Your task to perform on an android device: turn off notifications in google photos Image 0: 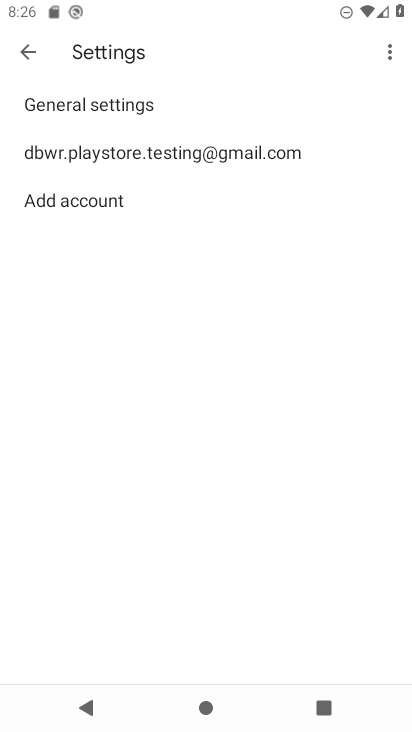
Step 0: press home button
Your task to perform on an android device: turn off notifications in google photos Image 1: 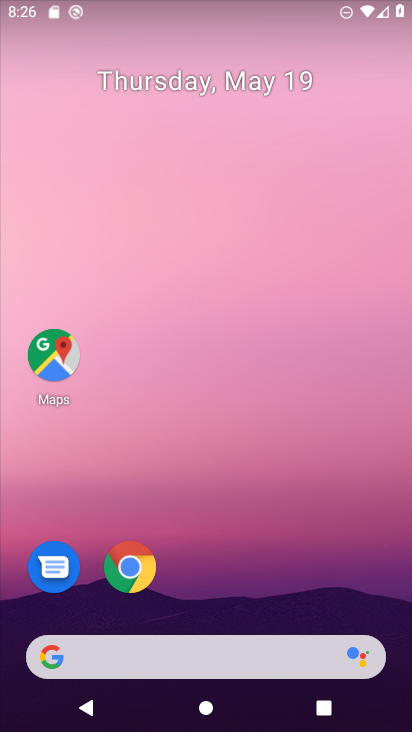
Step 1: drag from (195, 595) to (389, 99)
Your task to perform on an android device: turn off notifications in google photos Image 2: 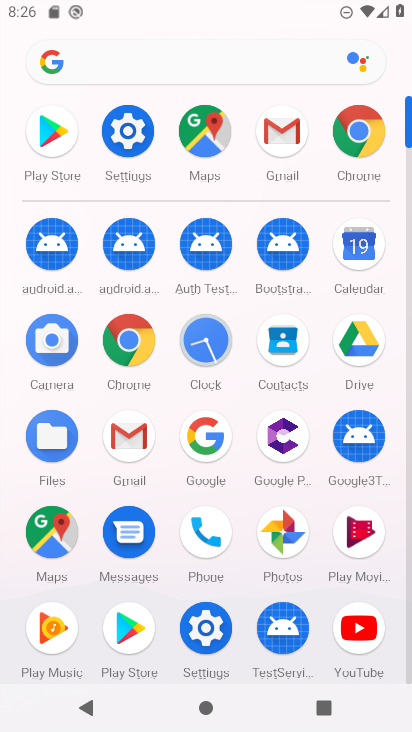
Step 2: click (296, 538)
Your task to perform on an android device: turn off notifications in google photos Image 3: 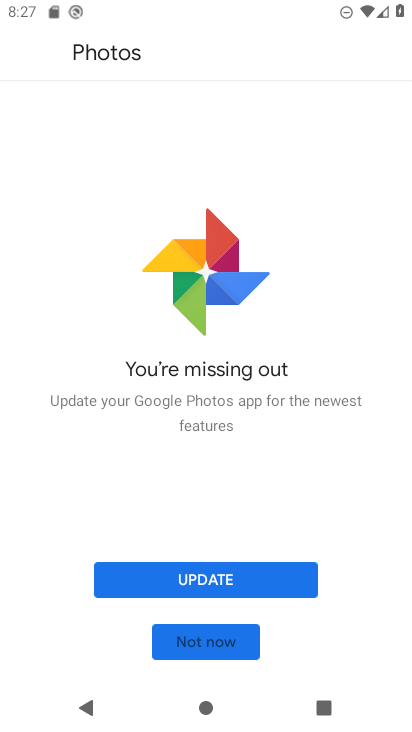
Step 3: click (219, 643)
Your task to perform on an android device: turn off notifications in google photos Image 4: 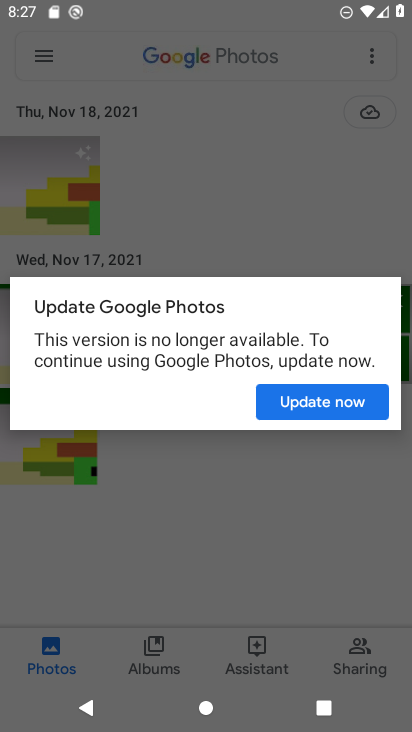
Step 4: click (305, 406)
Your task to perform on an android device: turn off notifications in google photos Image 5: 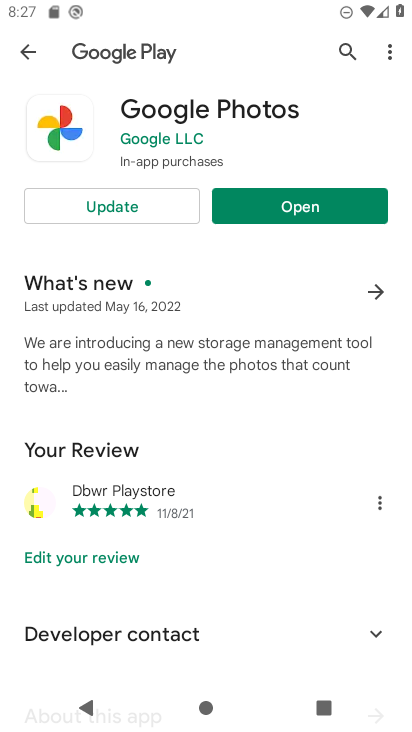
Step 5: click (326, 215)
Your task to perform on an android device: turn off notifications in google photos Image 6: 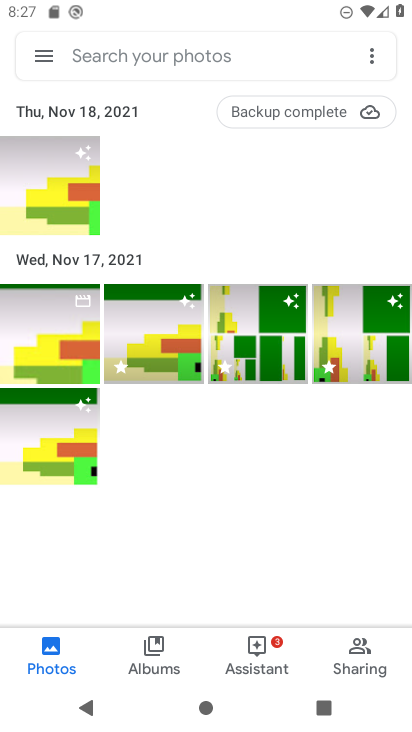
Step 6: click (46, 59)
Your task to perform on an android device: turn off notifications in google photos Image 7: 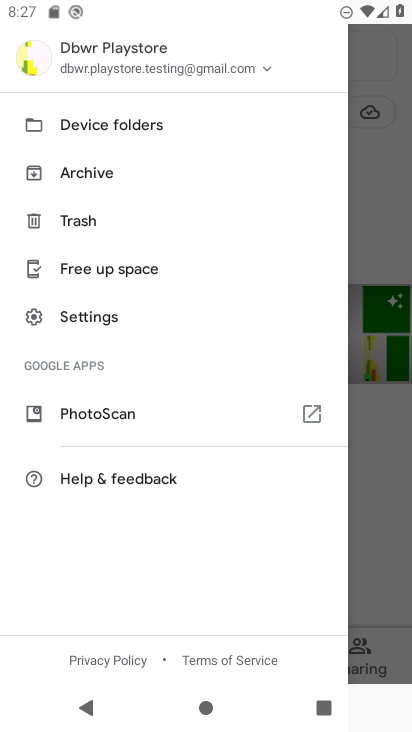
Step 7: click (84, 315)
Your task to perform on an android device: turn off notifications in google photos Image 8: 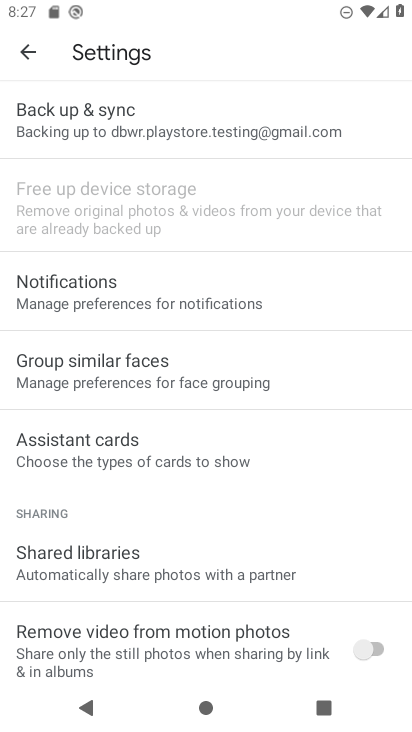
Step 8: click (84, 315)
Your task to perform on an android device: turn off notifications in google photos Image 9: 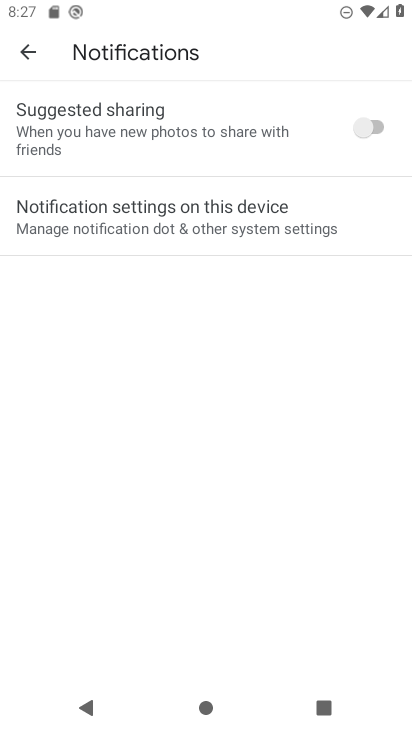
Step 9: click (263, 217)
Your task to perform on an android device: turn off notifications in google photos Image 10: 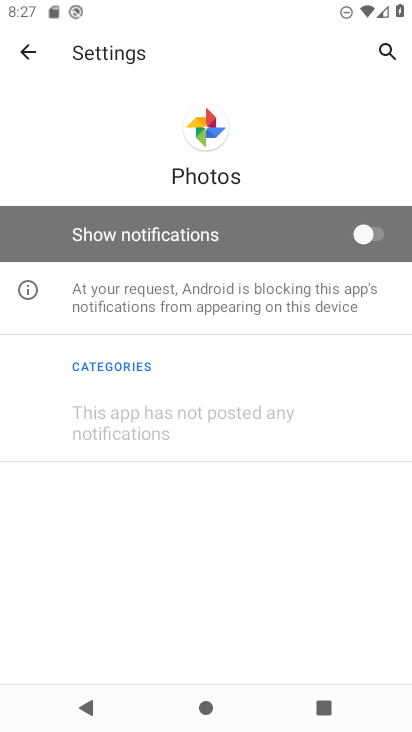
Step 10: task complete